Your task to perform on an android device: turn off improve location accuracy Image 0: 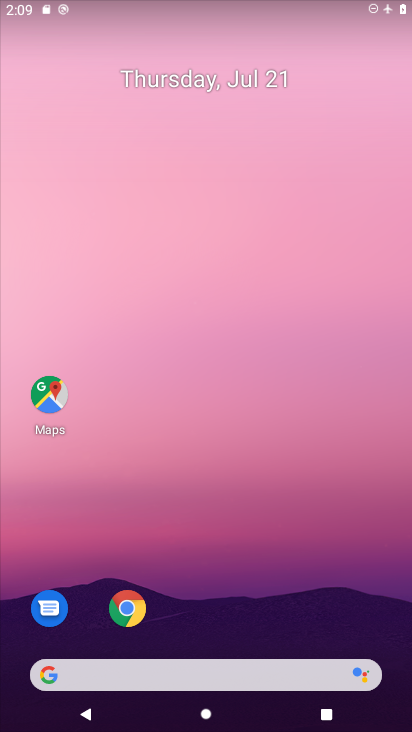
Step 0: drag from (225, 686) to (206, 67)
Your task to perform on an android device: turn off improve location accuracy Image 1: 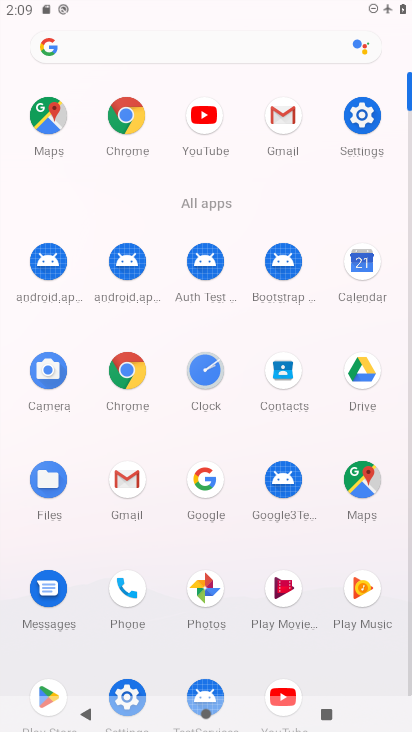
Step 1: click (368, 111)
Your task to perform on an android device: turn off improve location accuracy Image 2: 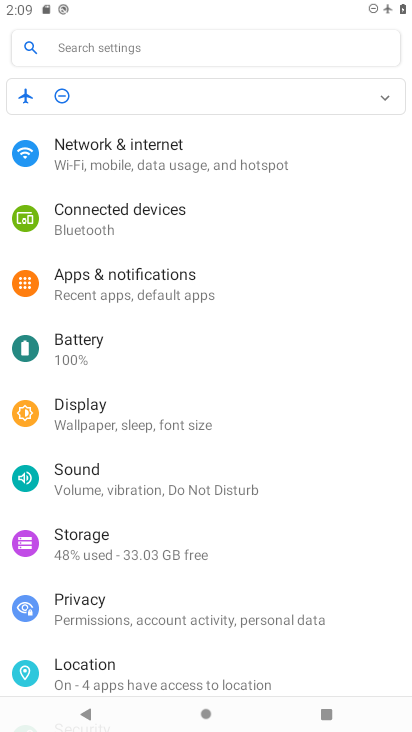
Step 2: click (83, 659)
Your task to perform on an android device: turn off improve location accuracy Image 3: 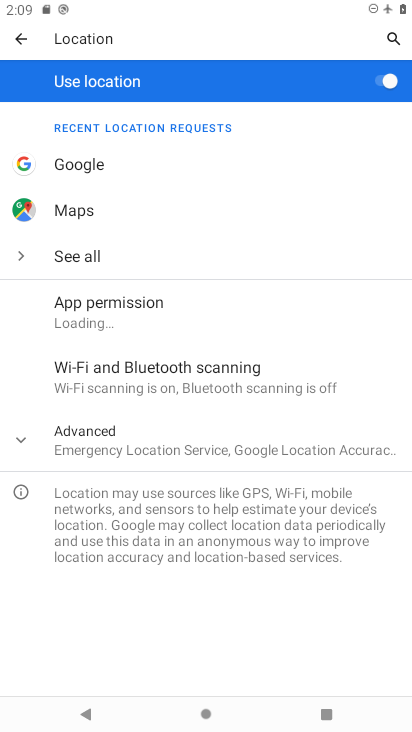
Step 3: click (114, 446)
Your task to perform on an android device: turn off improve location accuracy Image 4: 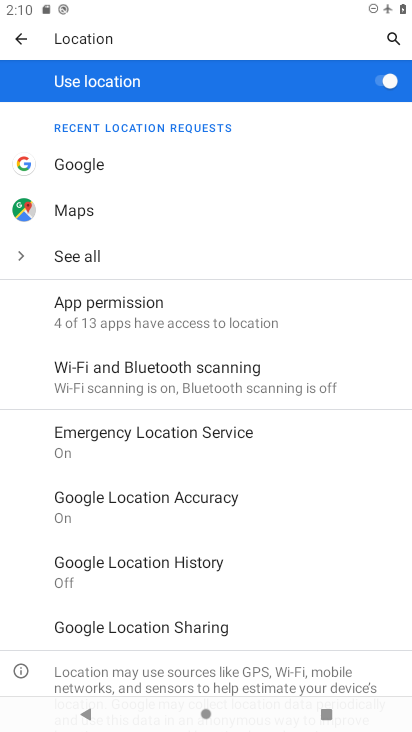
Step 4: click (181, 495)
Your task to perform on an android device: turn off improve location accuracy Image 5: 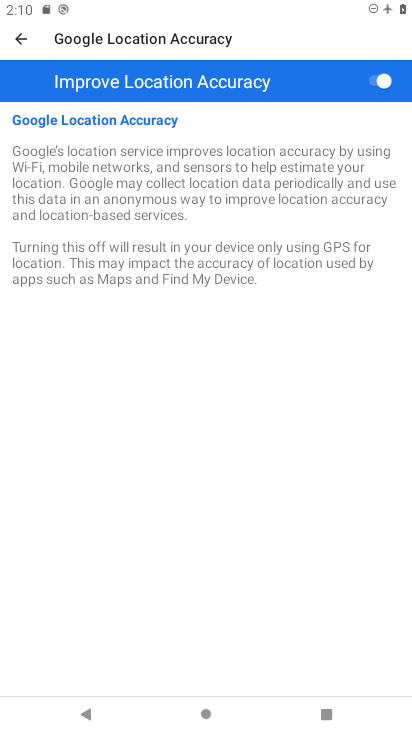
Step 5: task complete